Your task to perform on an android device: turn off data saver in the chrome app Image 0: 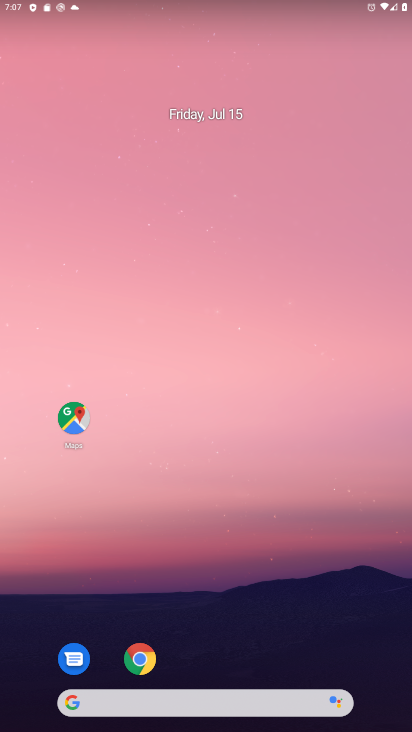
Step 0: click (135, 657)
Your task to perform on an android device: turn off data saver in the chrome app Image 1: 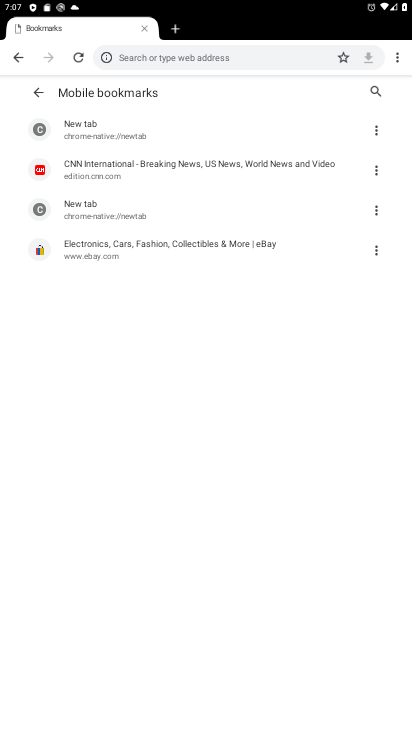
Step 1: click (397, 59)
Your task to perform on an android device: turn off data saver in the chrome app Image 2: 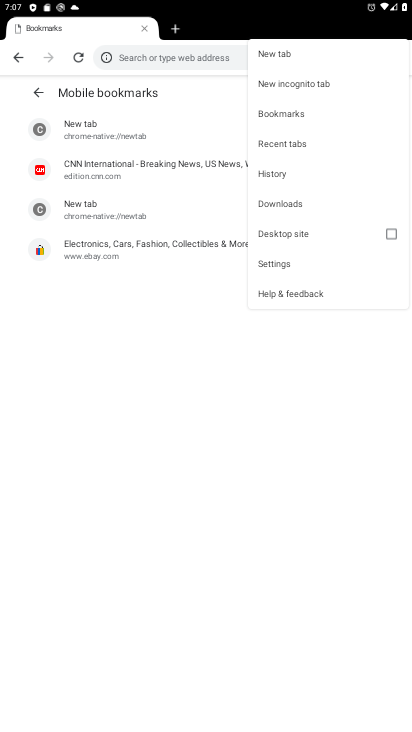
Step 2: click (279, 265)
Your task to perform on an android device: turn off data saver in the chrome app Image 3: 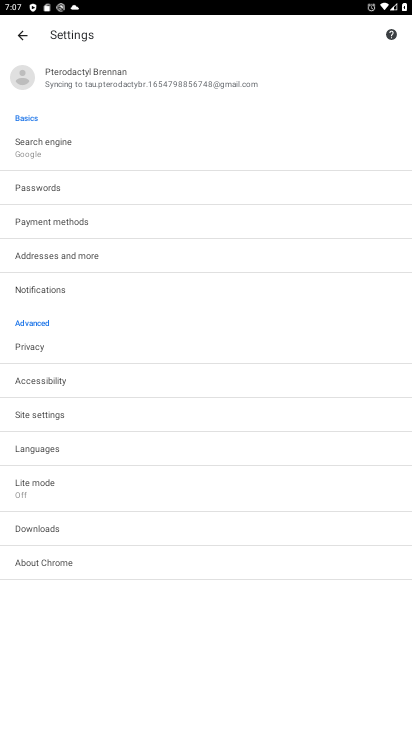
Step 3: click (28, 483)
Your task to perform on an android device: turn off data saver in the chrome app Image 4: 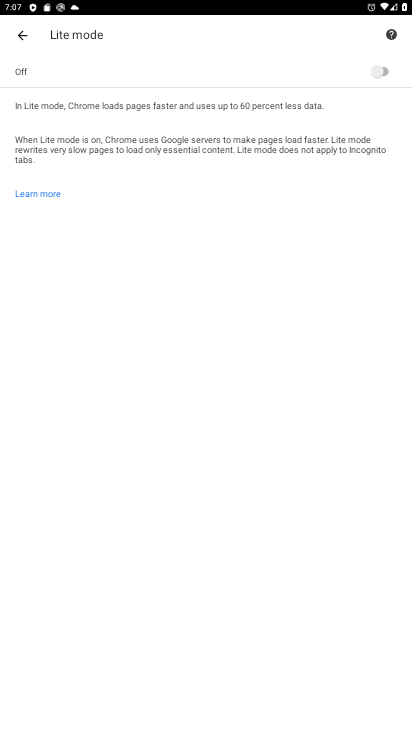
Step 4: task complete